Your task to perform on an android device: Empty the shopping cart on target.com. Search for "jbl charge 4" on target.com, select the first entry, and add it to the cart. Image 0: 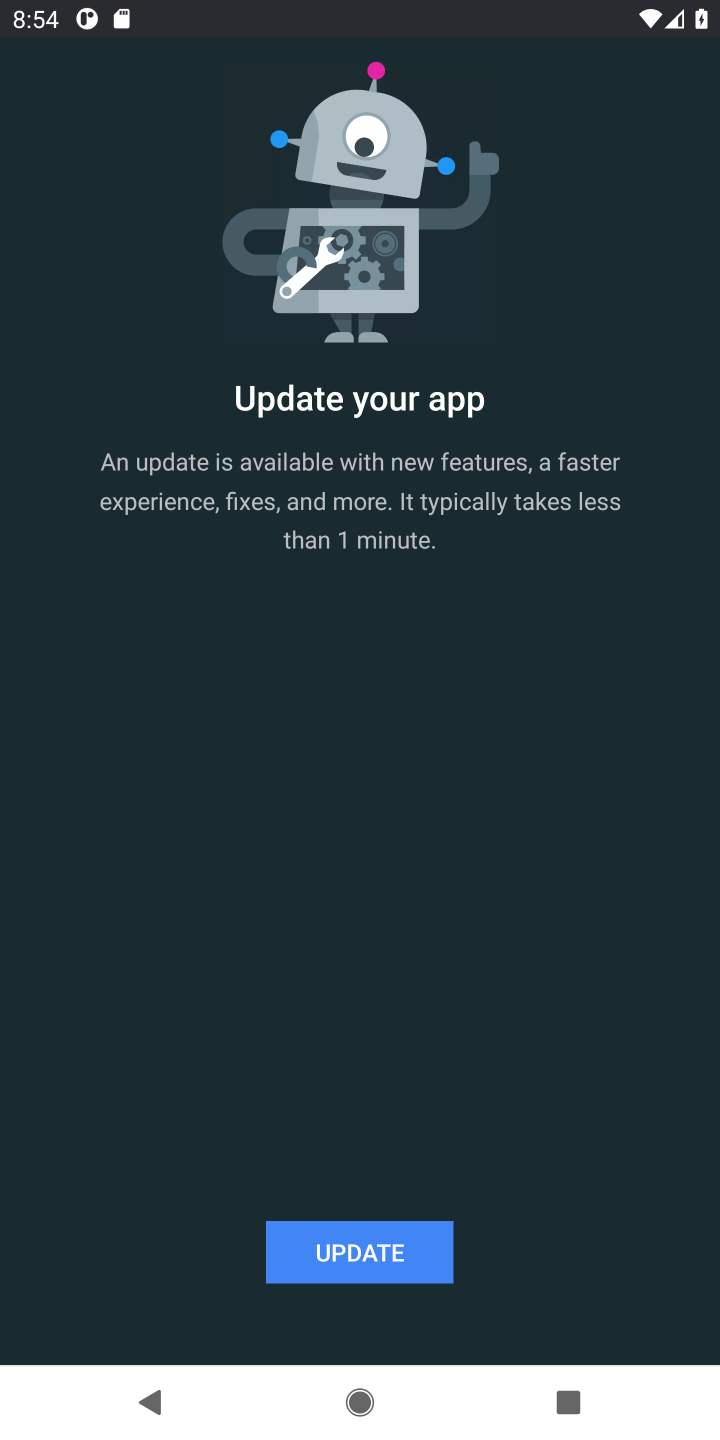
Step 0: press home button
Your task to perform on an android device: Empty the shopping cart on target.com. Search for "jbl charge 4" on target.com, select the first entry, and add it to the cart. Image 1: 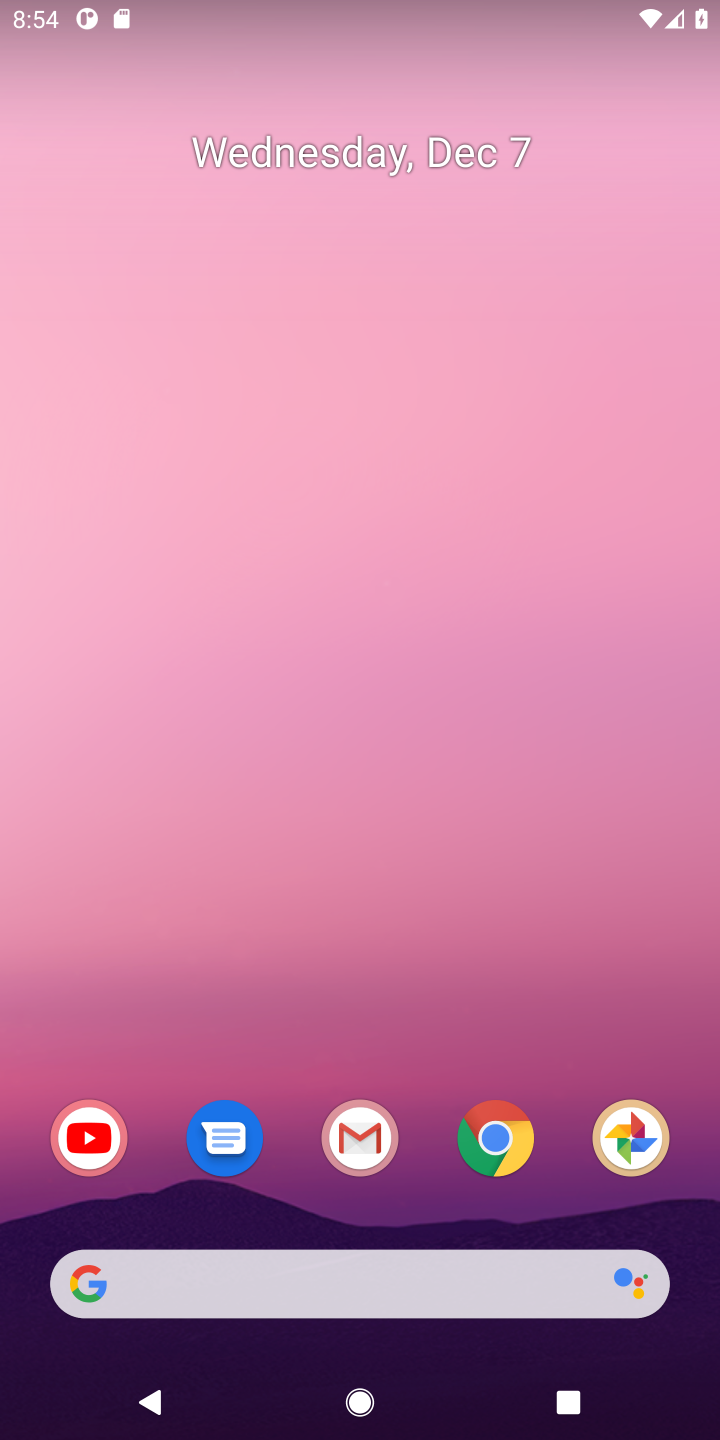
Step 1: click (136, 1283)
Your task to perform on an android device: Empty the shopping cart on target.com. Search for "jbl charge 4" on target.com, select the first entry, and add it to the cart. Image 2: 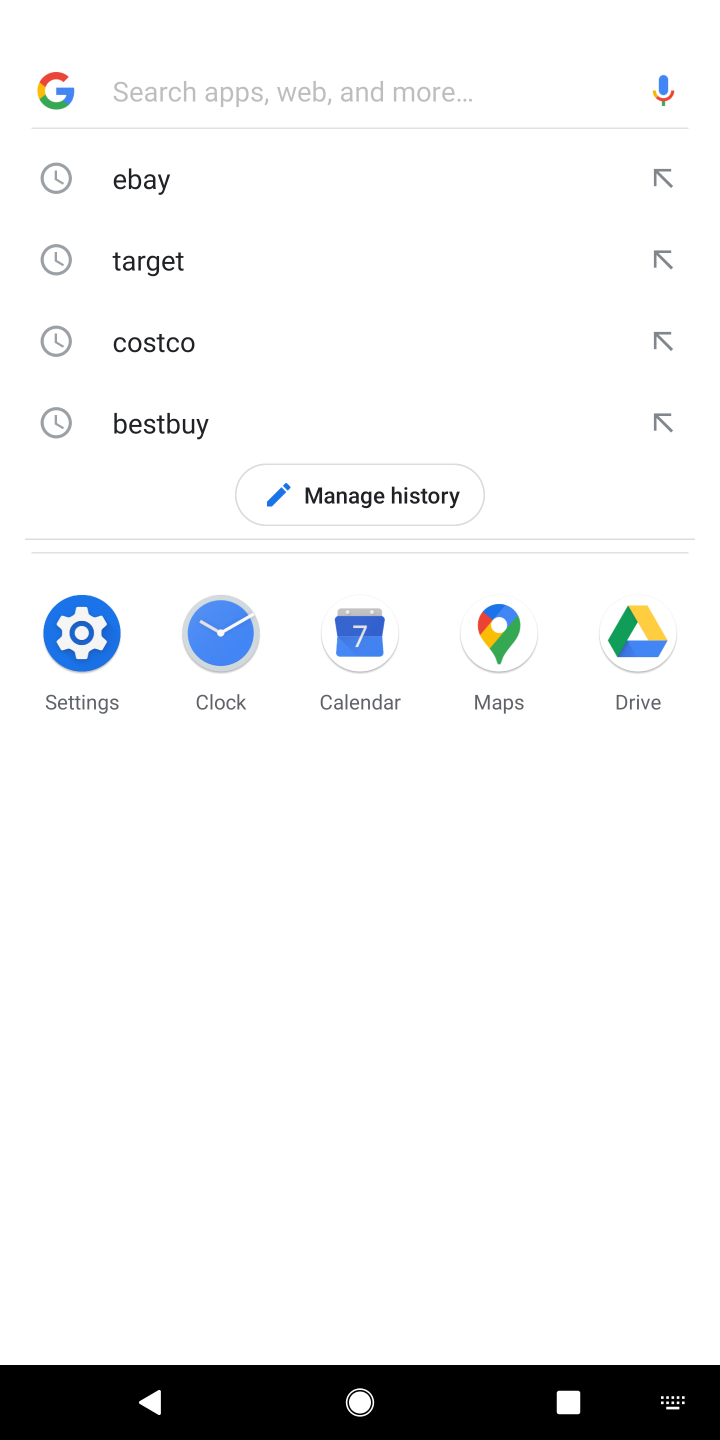
Step 2: press enter
Your task to perform on an android device: Empty the shopping cart on target.com. Search for "jbl charge 4" on target.com, select the first entry, and add it to the cart. Image 3: 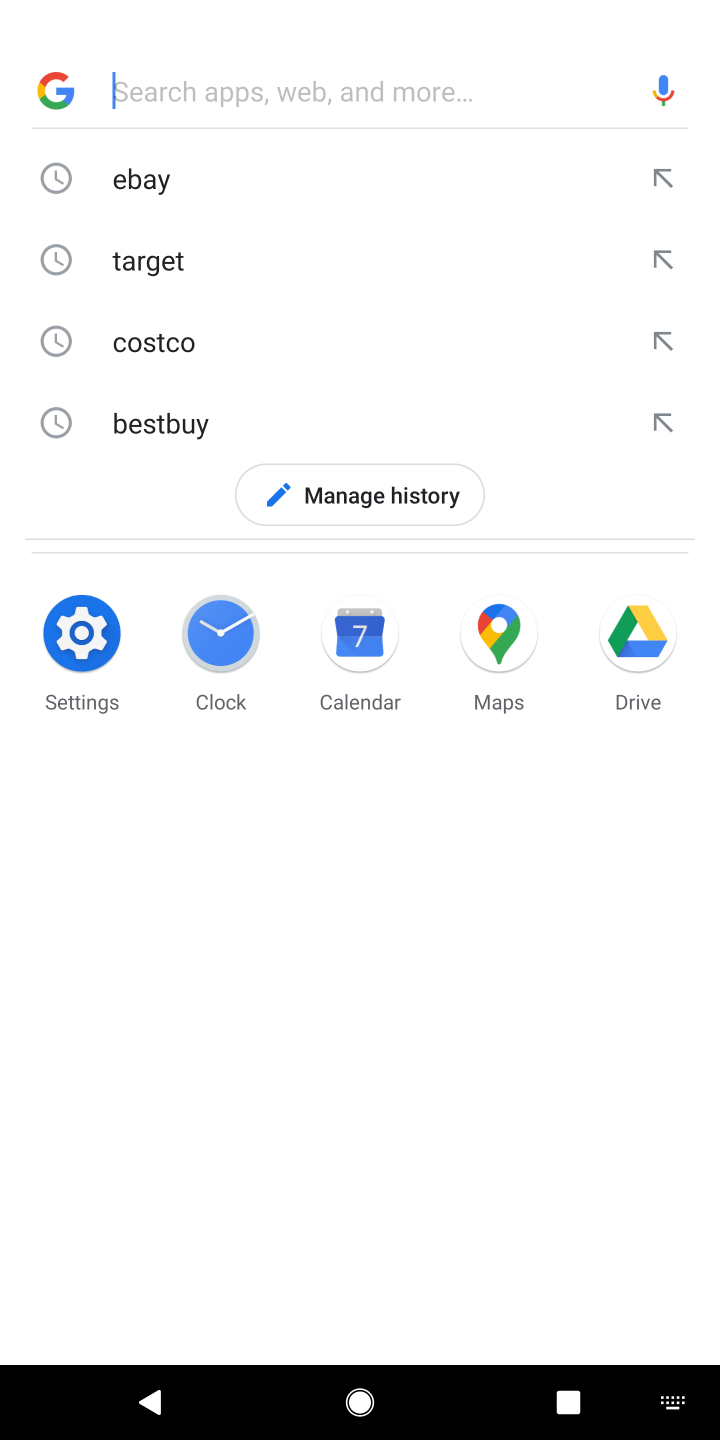
Step 3: type "target.com"
Your task to perform on an android device: Empty the shopping cart on target.com. Search for "jbl charge 4" on target.com, select the first entry, and add it to the cart. Image 4: 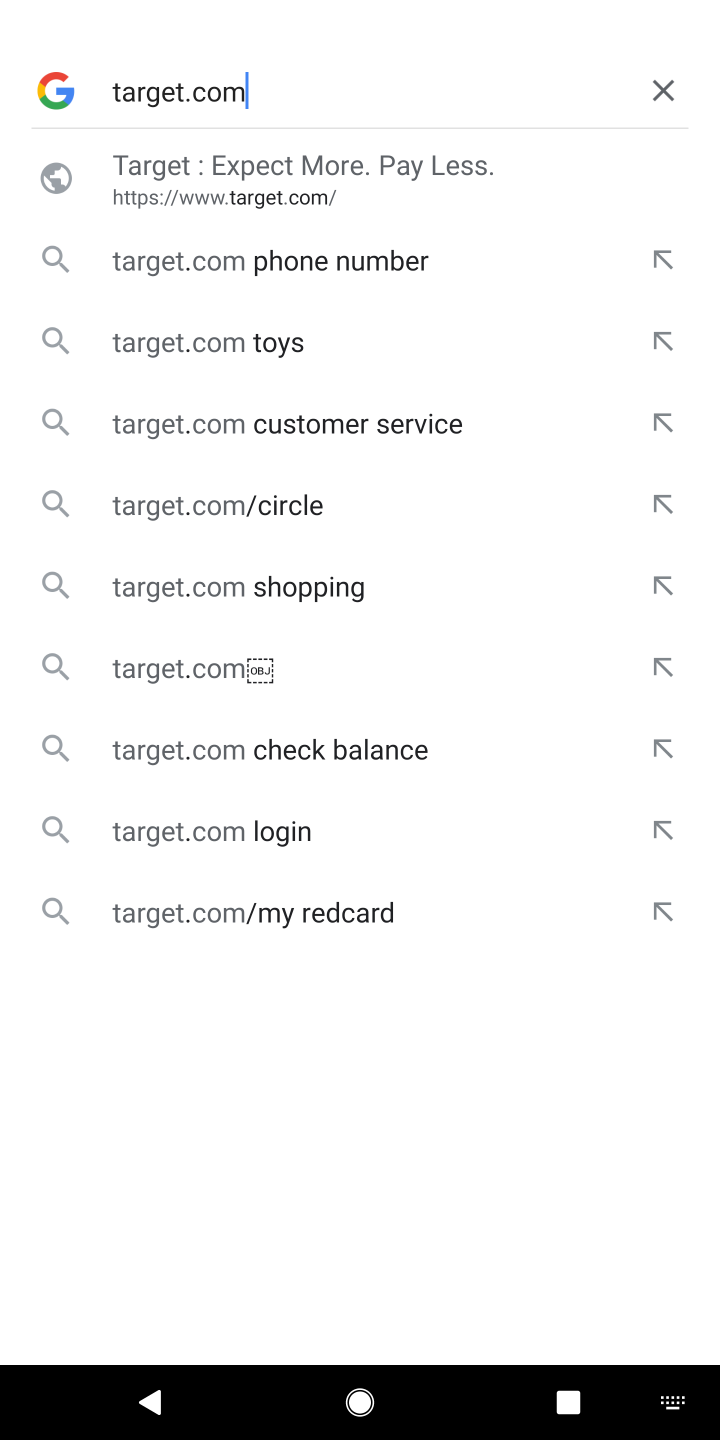
Step 4: press enter
Your task to perform on an android device: Empty the shopping cart on target.com. Search for "jbl charge 4" on target.com, select the first entry, and add it to the cart. Image 5: 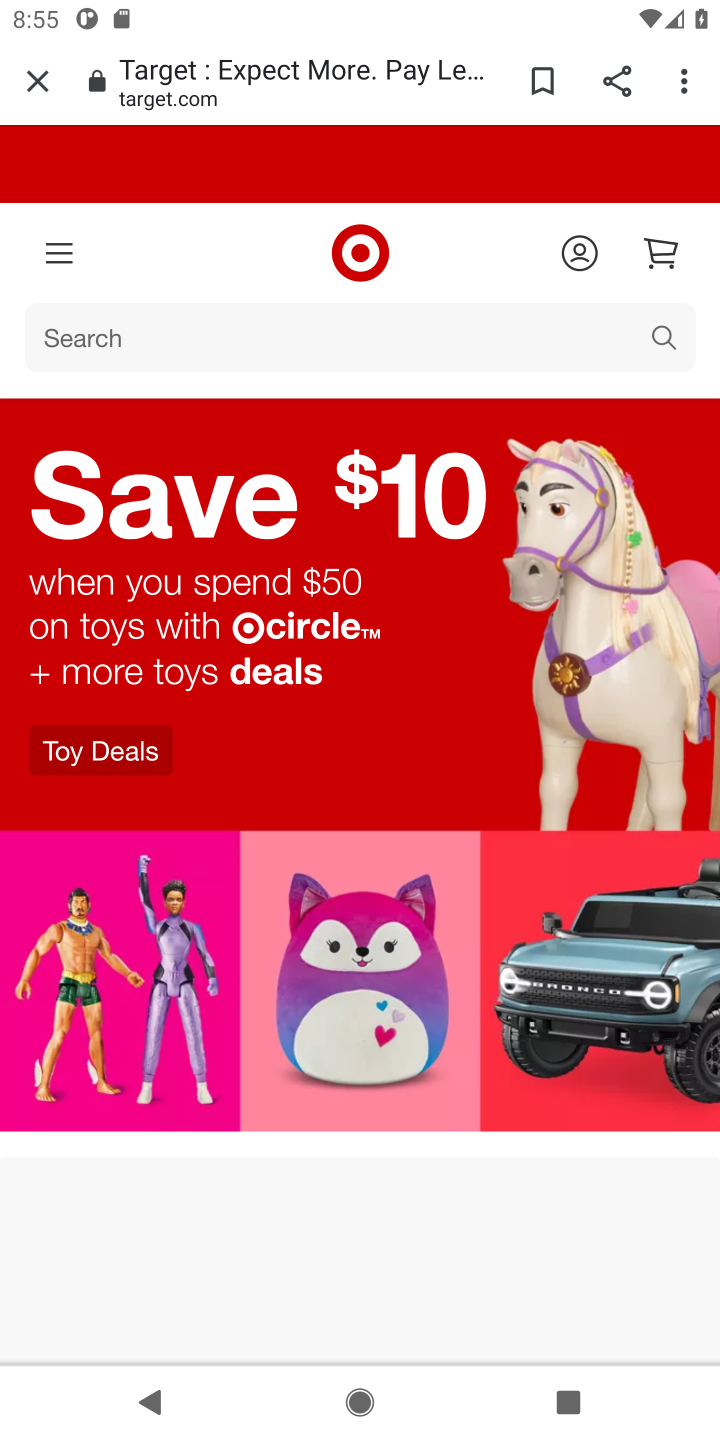
Step 5: click (665, 257)
Your task to perform on an android device: Empty the shopping cart on target.com. Search for "jbl charge 4" on target.com, select the first entry, and add it to the cart. Image 6: 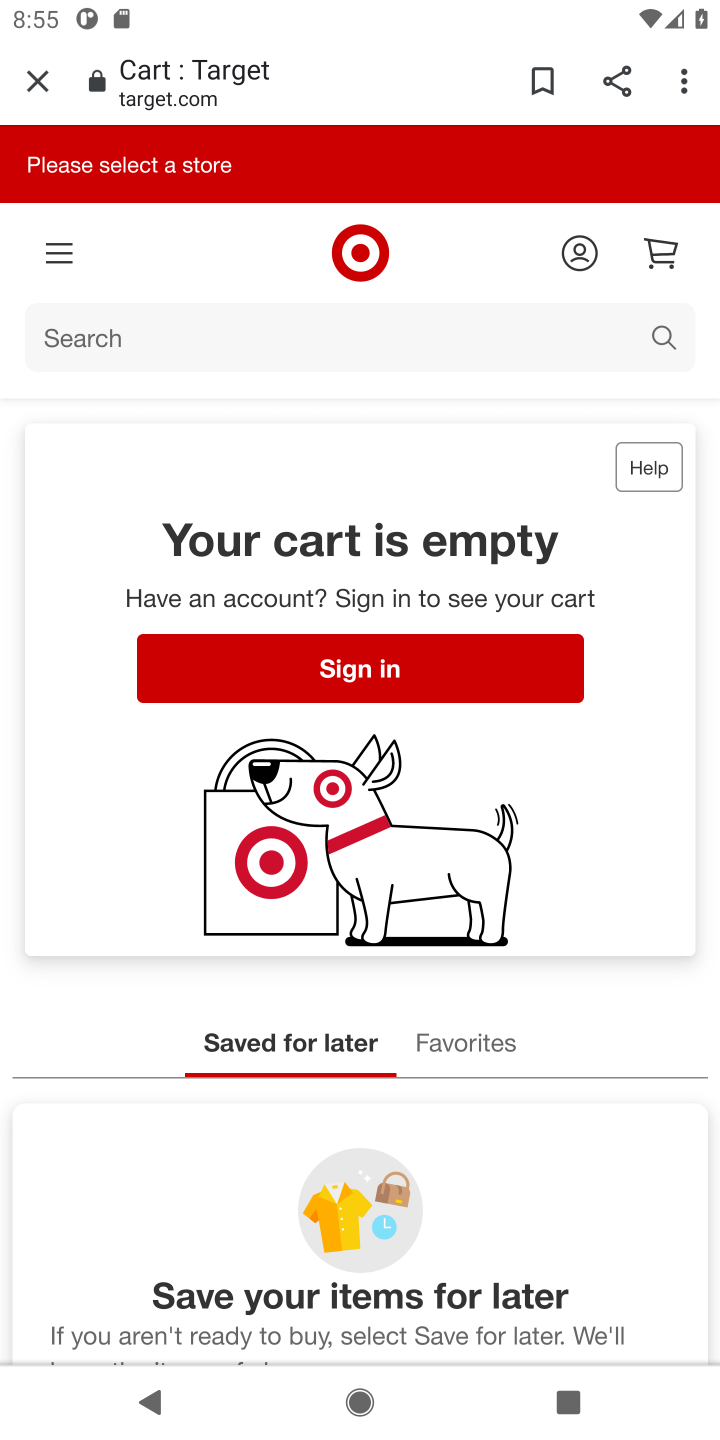
Step 6: click (132, 332)
Your task to perform on an android device: Empty the shopping cart on target.com. Search for "jbl charge 4" on target.com, select the first entry, and add it to the cart. Image 7: 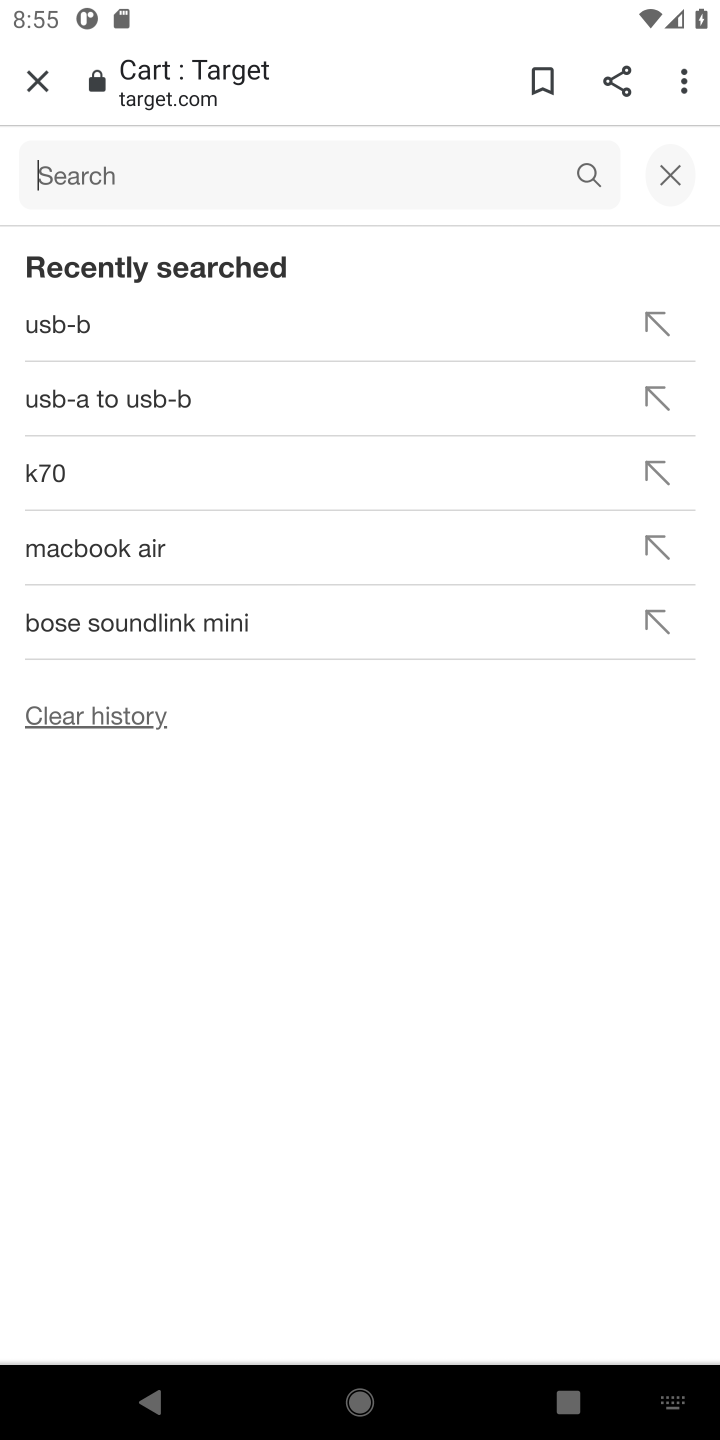
Step 7: press enter
Your task to perform on an android device: Empty the shopping cart on target.com. Search for "jbl charge 4" on target.com, select the first entry, and add it to the cart. Image 8: 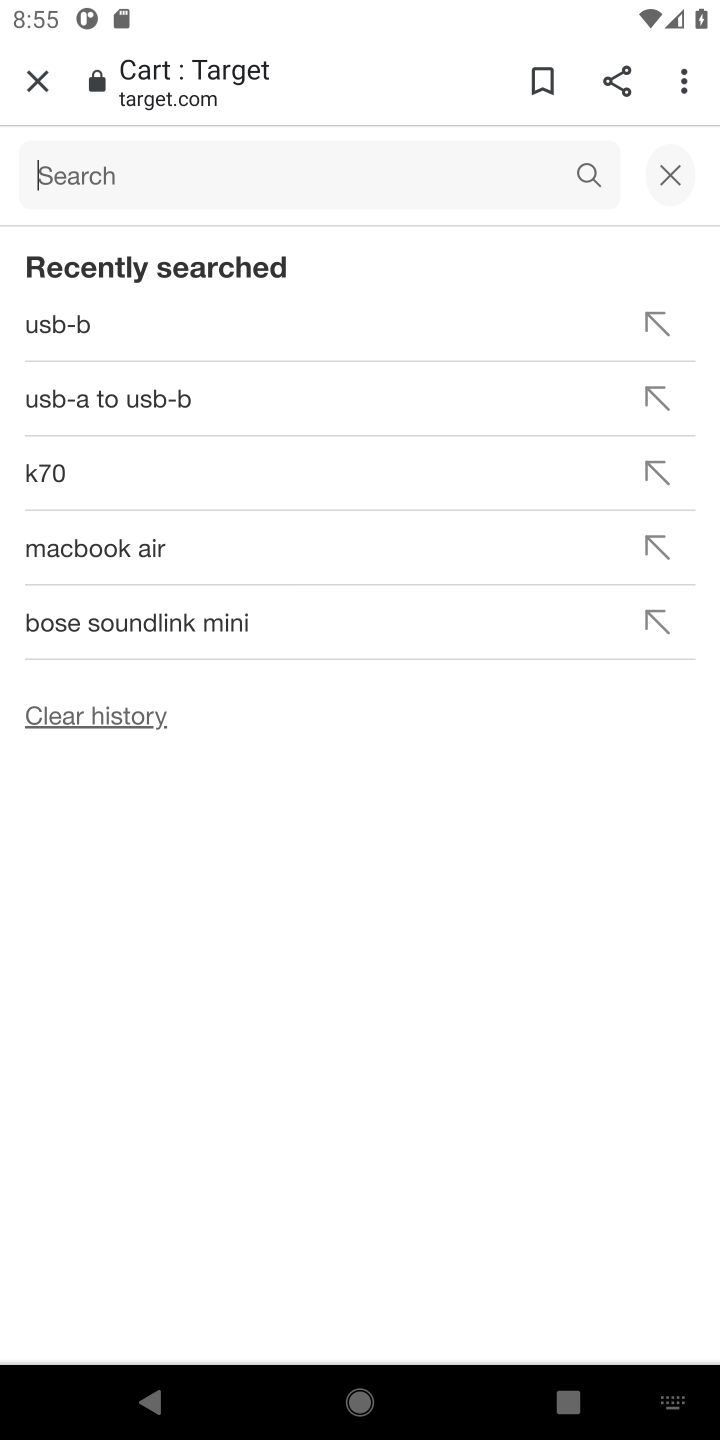
Step 8: type "jbl charge 4"
Your task to perform on an android device: Empty the shopping cart on target.com. Search for "jbl charge 4" on target.com, select the first entry, and add it to the cart. Image 9: 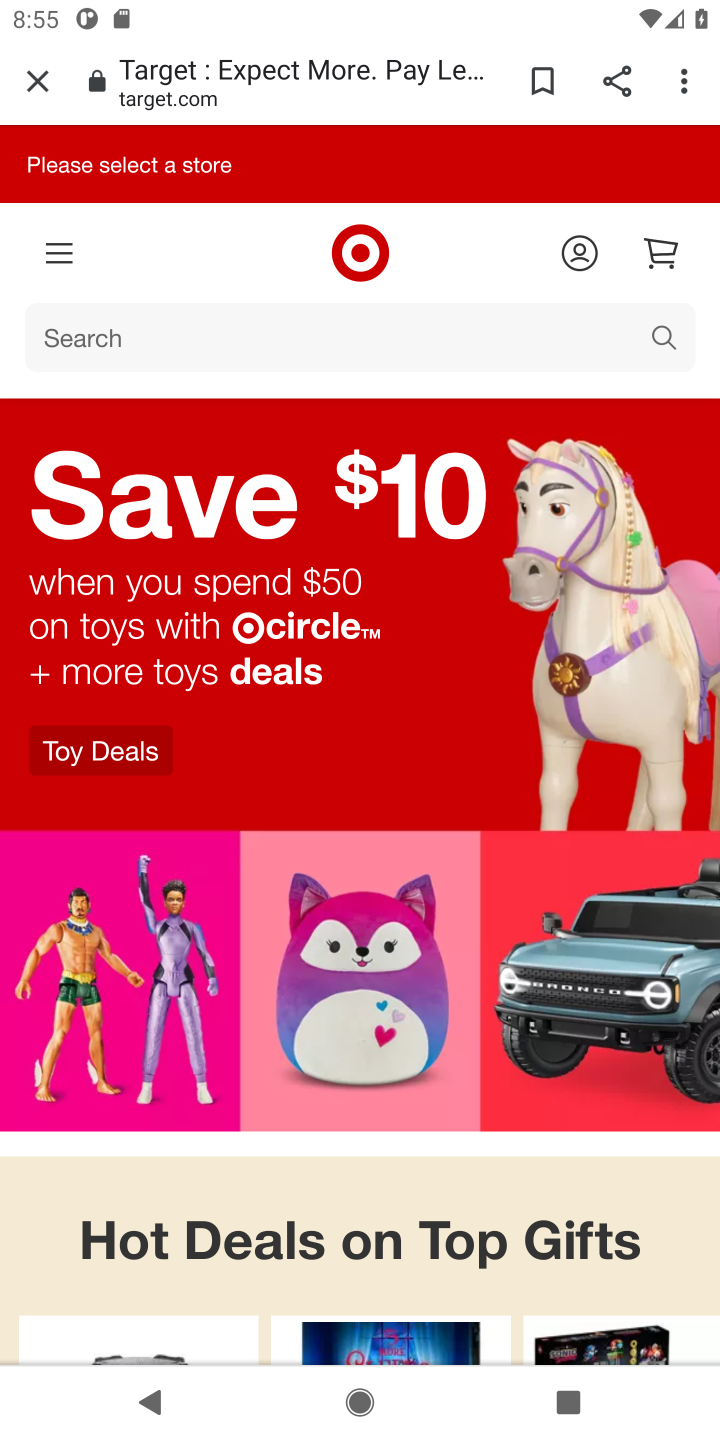
Step 9: click (93, 323)
Your task to perform on an android device: Empty the shopping cart on target.com. Search for "jbl charge 4" on target.com, select the first entry, and add it to the cart. Image 10: 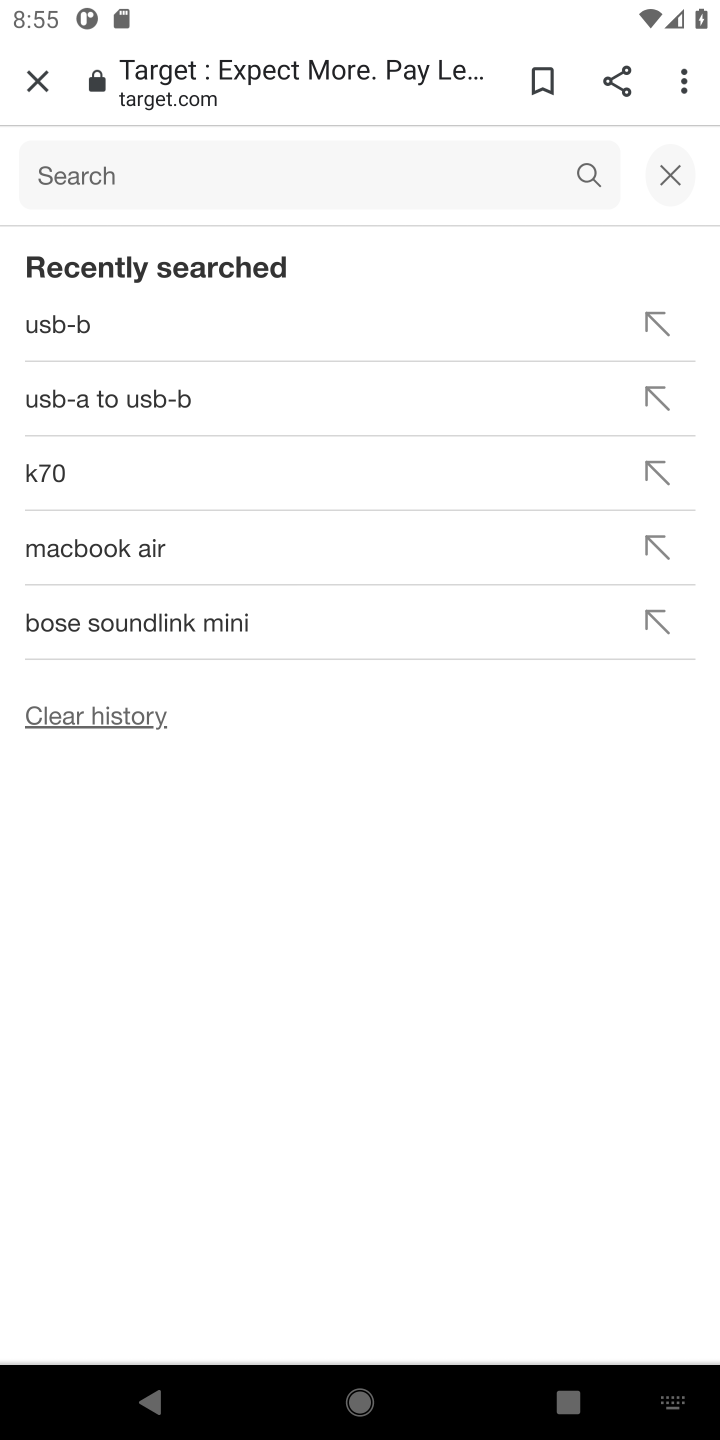
Step 10: type "jbl charge 4"
Your task to perform on an android device: Empty the shopping cart on target.com. Search for "jbl charge 4" on target.com, select the first entry, and add it to the cart. Image 11: 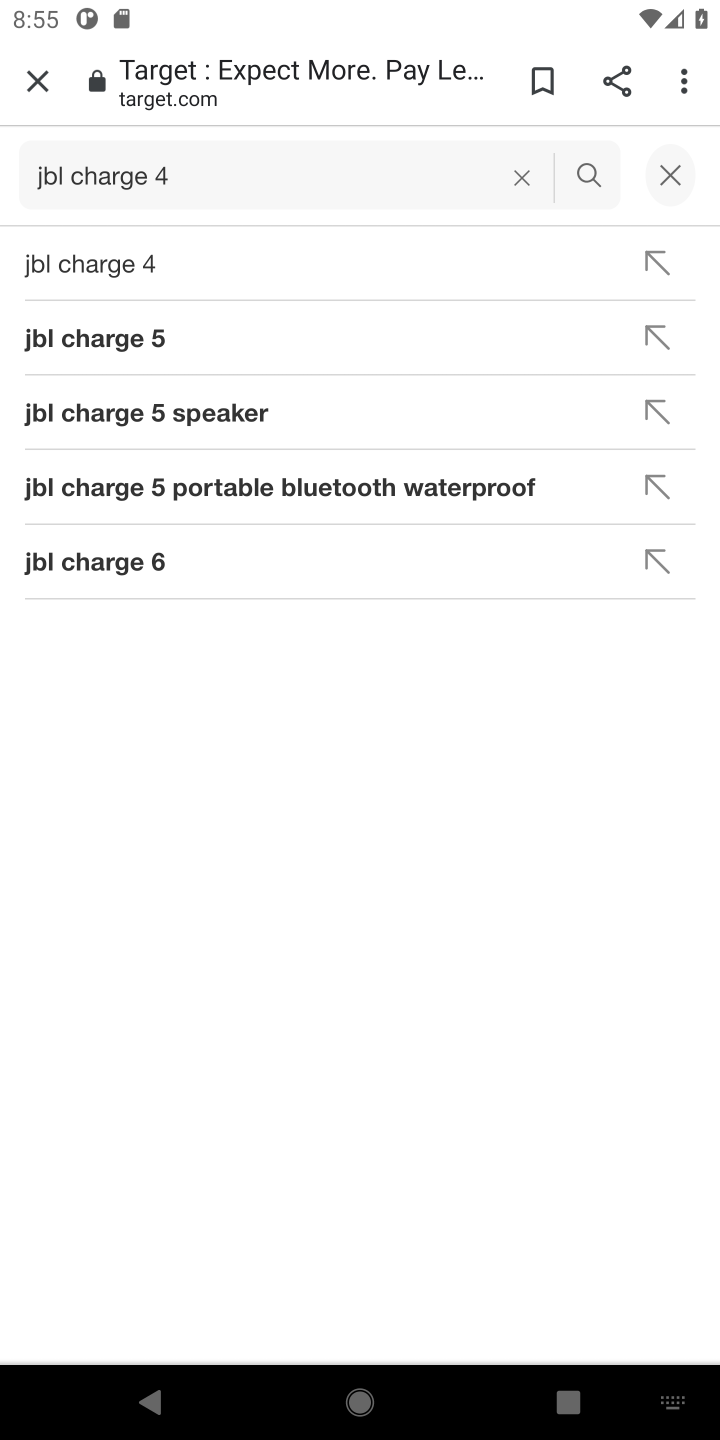
Step 11: click (595, 172)
Your task to perform on an android device: Empty the shopping cart on target.com. Search for "jbl charge 4" on target.com, select the first entry, and add it to the cart. Image 12: 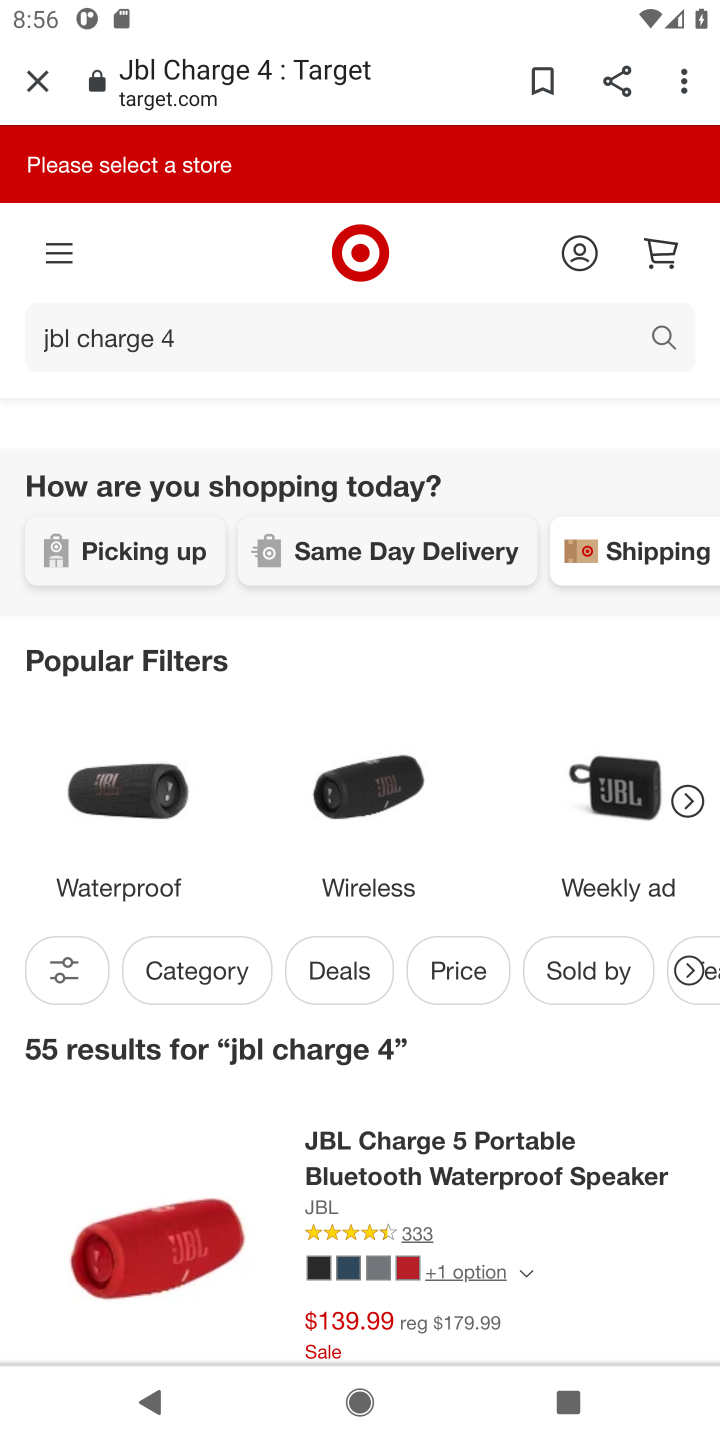
Step 12: drag from (435, 1184) to (456, 553)
Your task to perform on an android device: Empty the shopping cart on target.com. Search for "jbl charge 4" on target.com, select the first entry, and add it to the cart. Image 13: 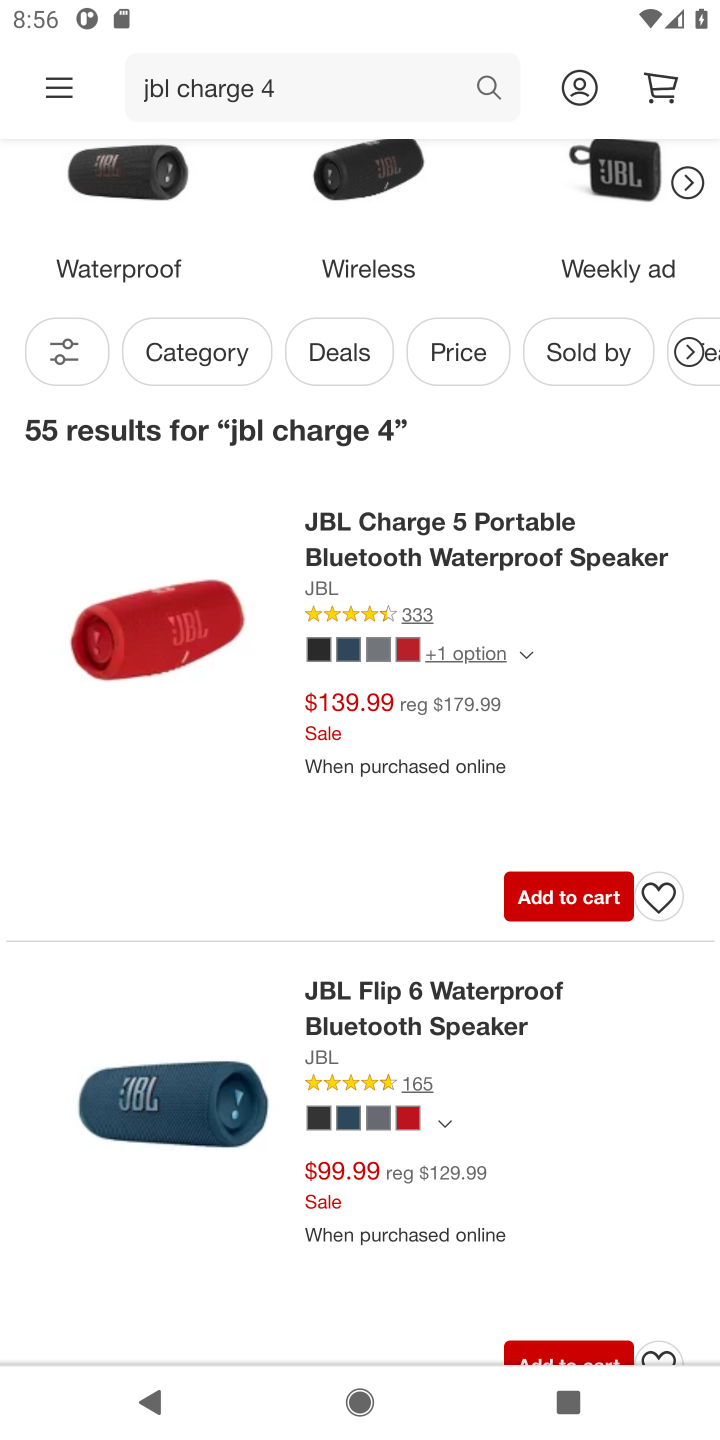
Step 13: drag from (403, 1167) to (390, 437)
Your task to perform on an android device: Empty the shopping cart on target.com. Search for "jbl charge 4" on target.com, select the first entry, and add it to the cart. Image 14: 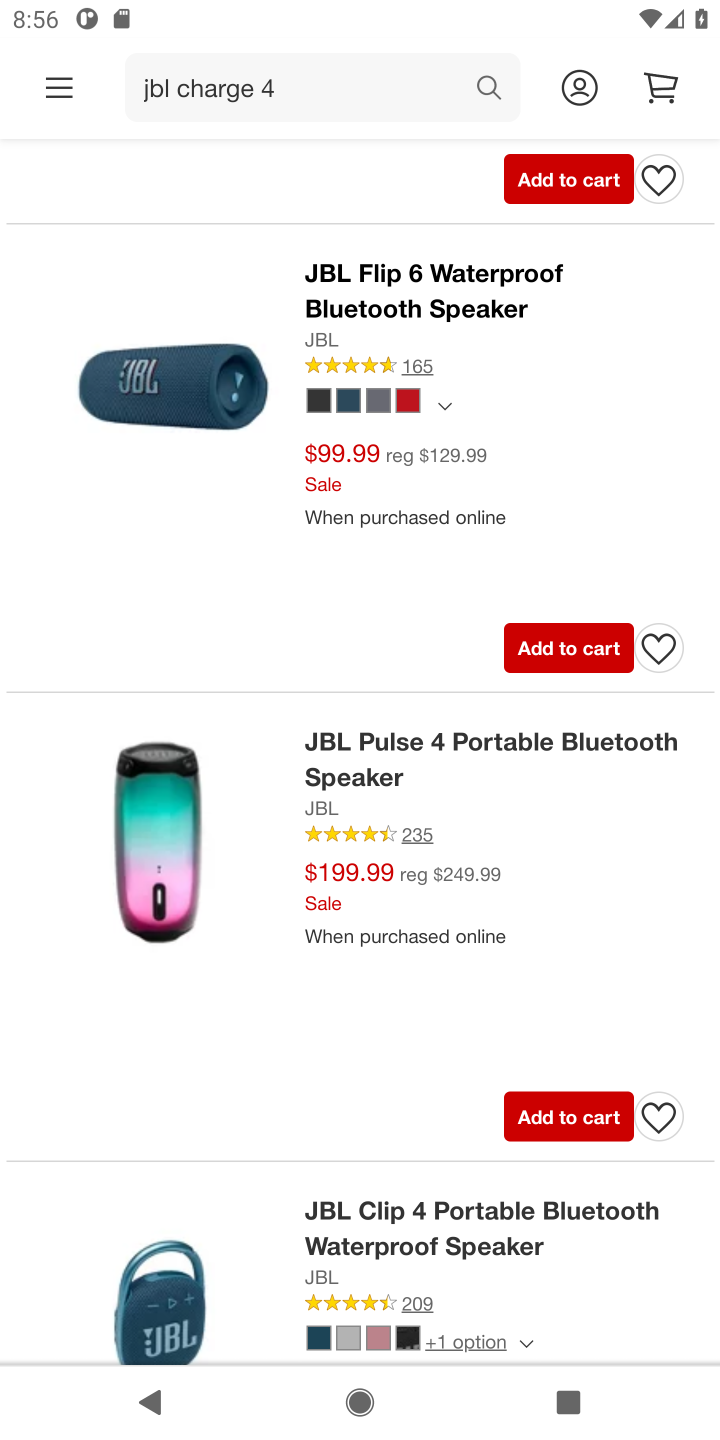
Step 14: click (571, 1121)
Your task to perform on an android device: Empty the shopping cart on target.com. Search for "jbl charge 4" on target.com, select the first entry, and add it to the cart. Image 15: 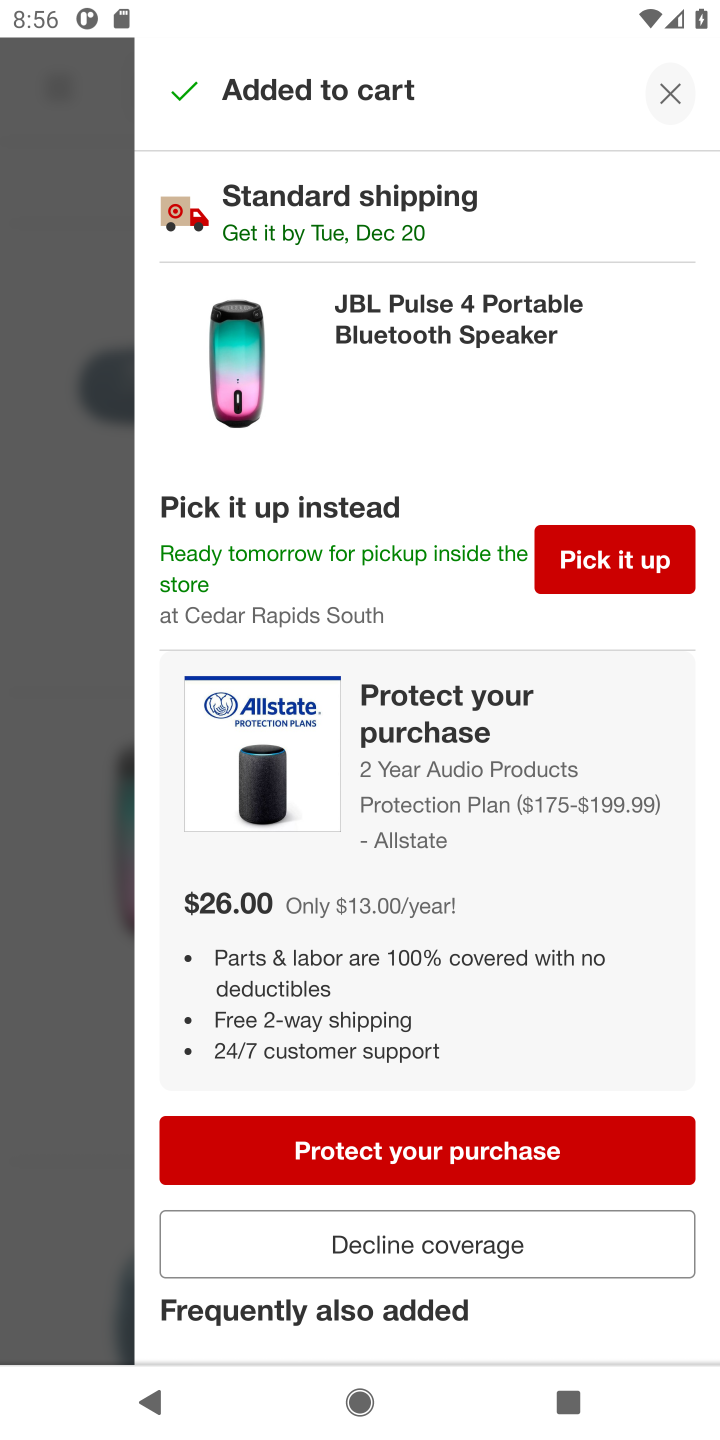
Step 15: task complete